Your task to perform on an android device: toggle location history Image 0: 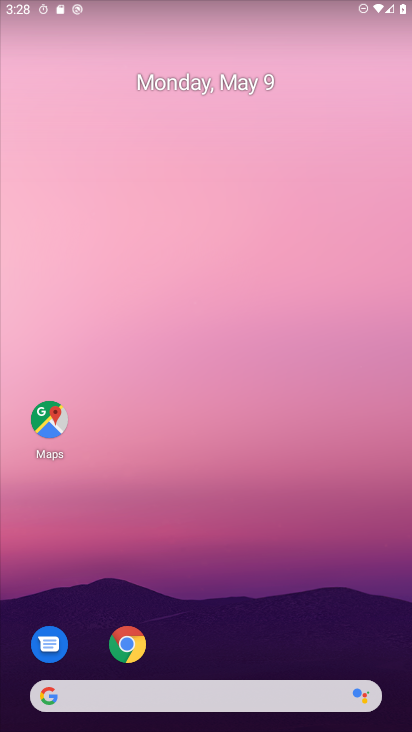
Step 0: drag from (239, 654) to (215, 153)
Your task to perform on an android device: toggle location history Image 1: 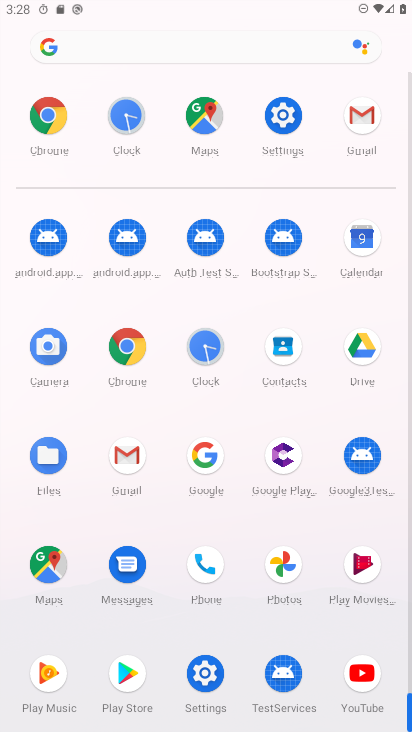
Step 1: drag from (338, 659) to (386, 318)
Your task to perform on an android device: toggle location history Image 2: 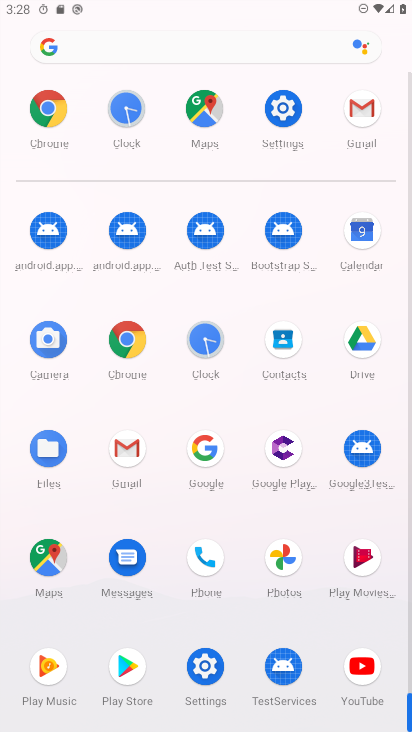
Step 2: drag from (251, 273) to (218, 583)
Your task to perform on an android device: toggle location history Image 3: 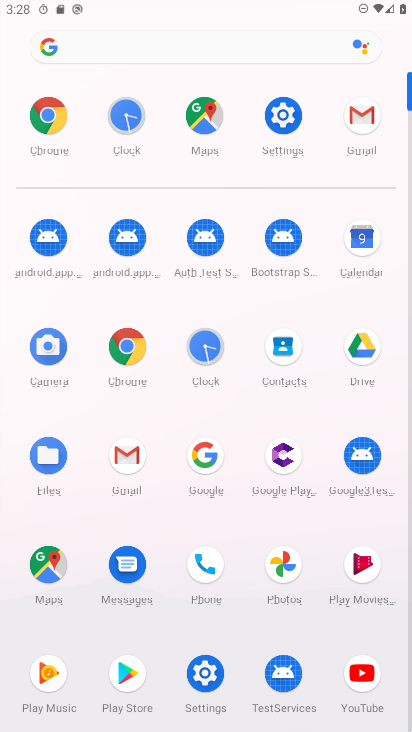
Step 3: drag from (232, 642) to (243, 274)
Your task to perform on an android device: toggle location history Image 4: 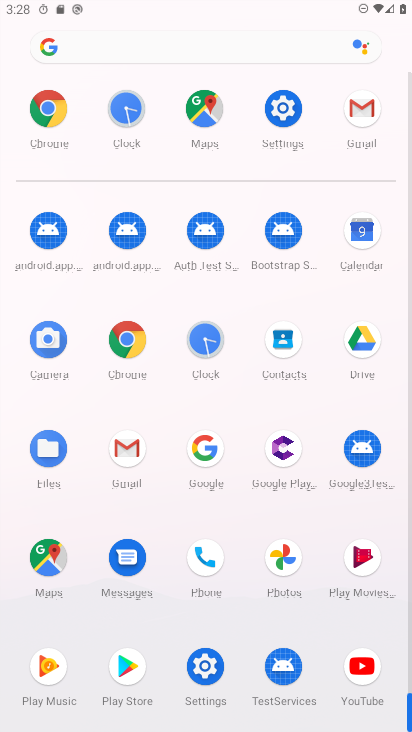
Step 4: drag from (241, 594) to (288, 370)
Your task to perform on an android device: toggle location history Image 5: 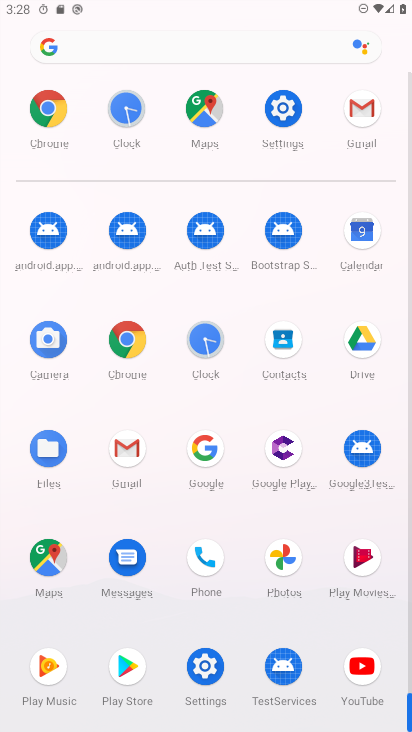
Step 5: drag from (225, 283) to (209, 662)
Your task to perform on an android device: toggle location history Image 6: 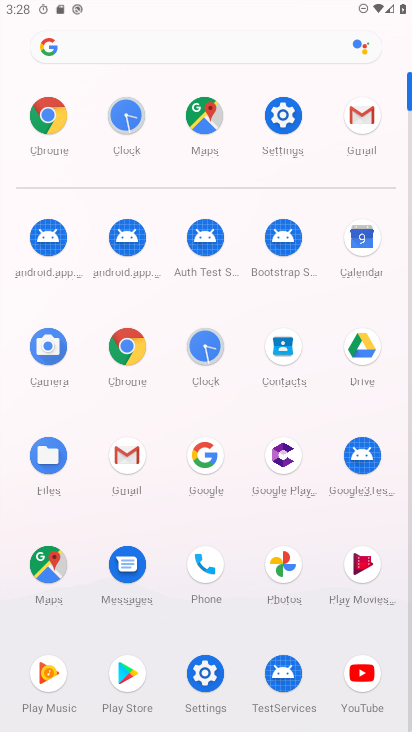
Step 6: drag from (276, 327) to (238, 709)
Your task to perform on an android device: toggle location history Image 7: 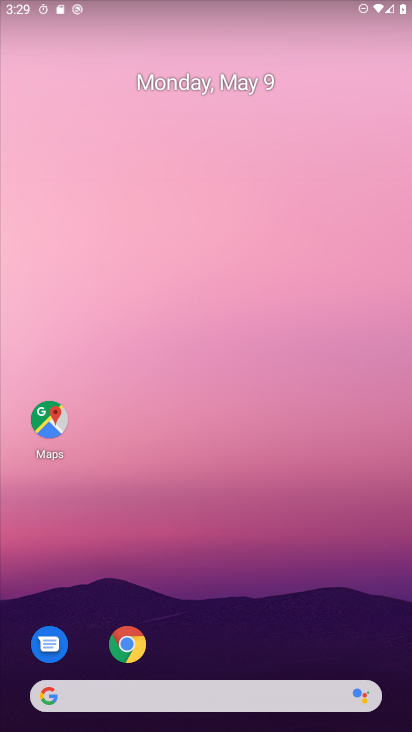
Step 7: drag from (191, 647) to (184, 0)
Your task to perform on an android device: toggle location history Image 8: 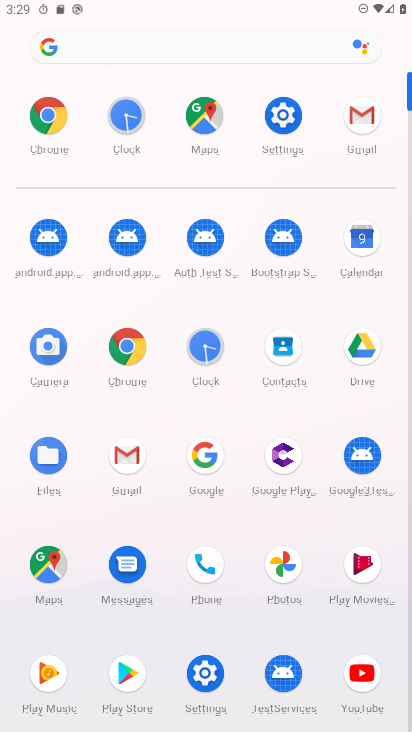
Step 8: click (197, 699)
Your task to perform on an android device: toggle location history Image 9: 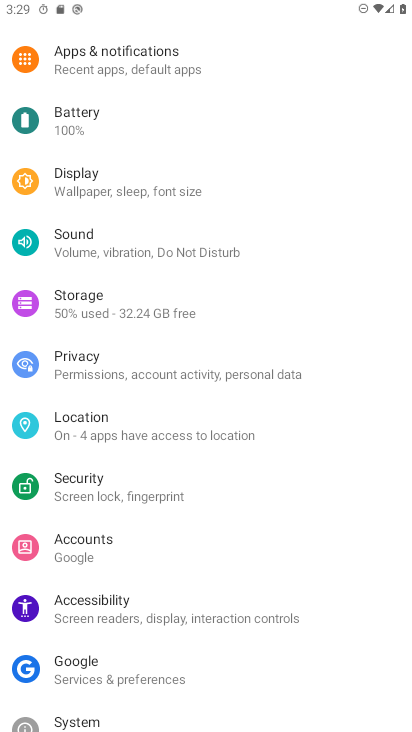
Step 9: drag from (254, 235) to (207, 466)
Your task to perform on an android device: toggle location history Image 10: 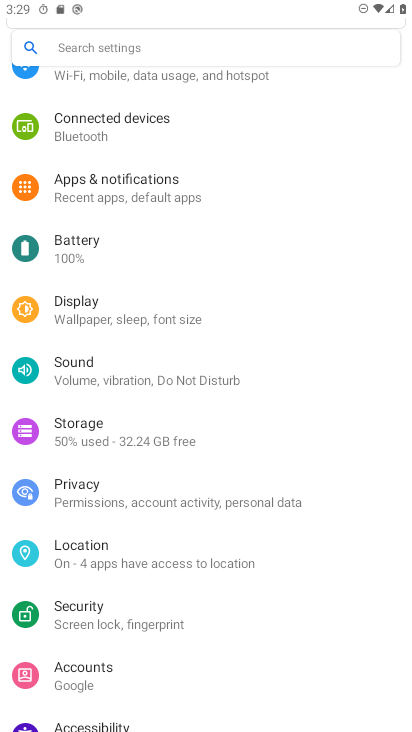
Step 10: drag from (237, 287) to (232, 530)
Your task to perform on an android device: toggle location history Image 11: 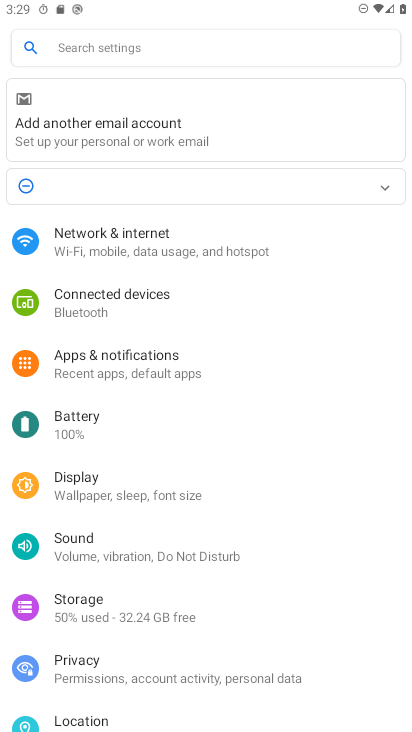
Step 11: drag from (171, 669) to (176, 231)
Your task to perform on an android device: toggle location history Image 12: 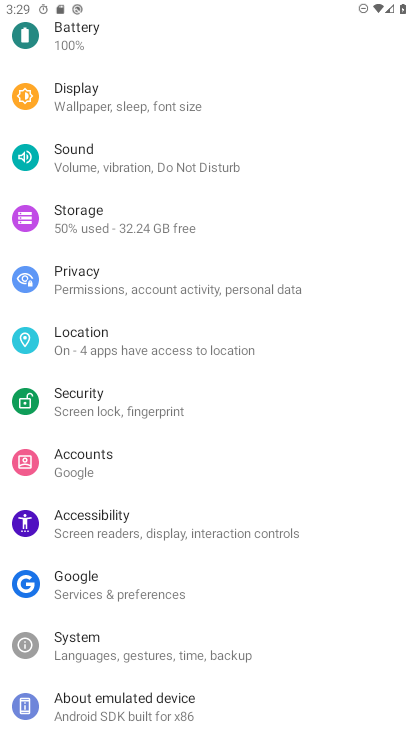
Step 12: drag from (220, 238) to (216, 490)
Your task to perform on an android device: toggle location history Image 13: 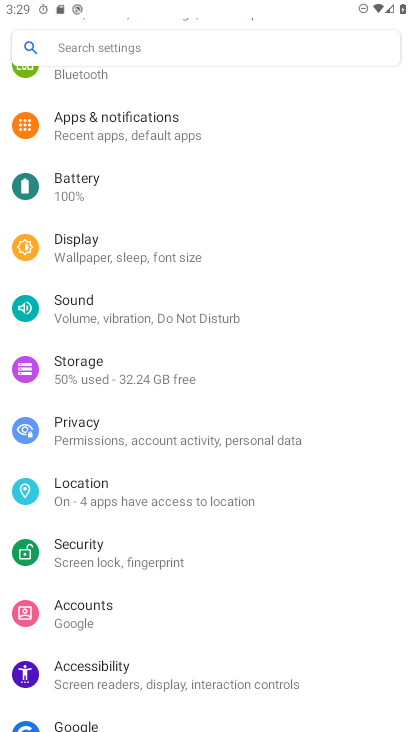
Step 13: click (237, 284)
Your task to perform on an android device: toggle location history Image 14: 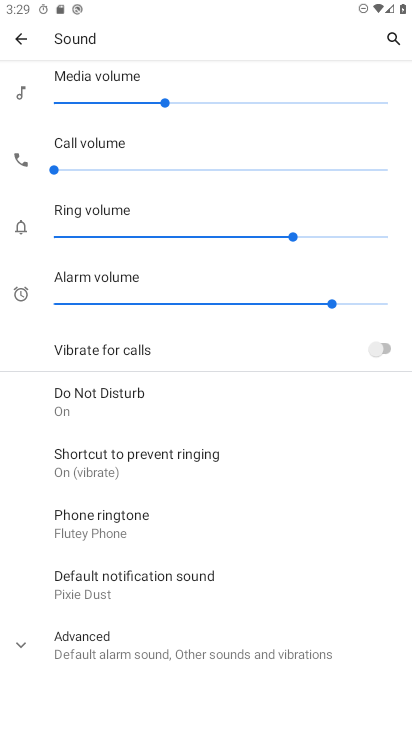
Step 14: drag from (244, 215) to (185, 683)
Your task to perform on an android device: toggle location history Image 15: 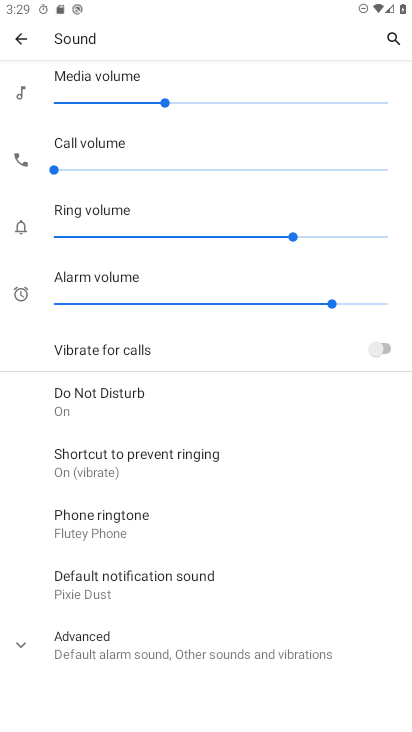
Step 15: press back button
Your task to perform on an android device: toggle location history Image 16: 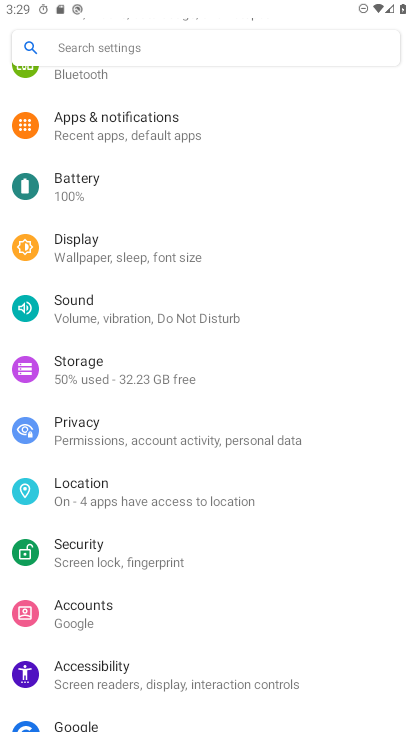
Step 16: drag from (297, 194) to (296, 569)
Your task to perform on an android device: toggle location history Image 17: 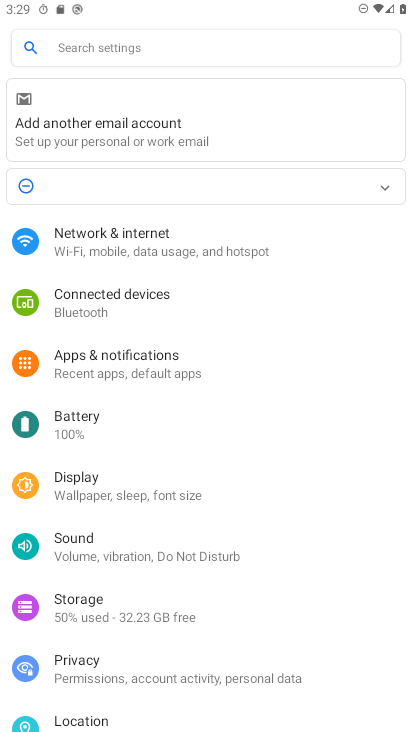
Step 17: drag from (236, 624) to (231, 309)
Your task to perform on an android device: toggle location history Image 18: 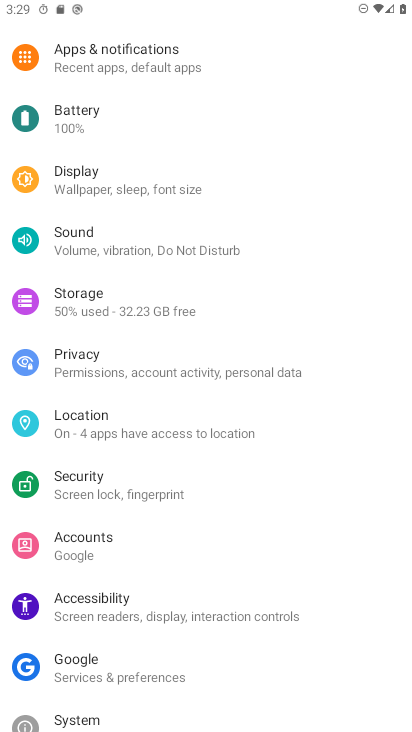
Step 18: drag from (234, 283) to (208, 569)
Your task to perform on an android device: toggle location history Image 19: 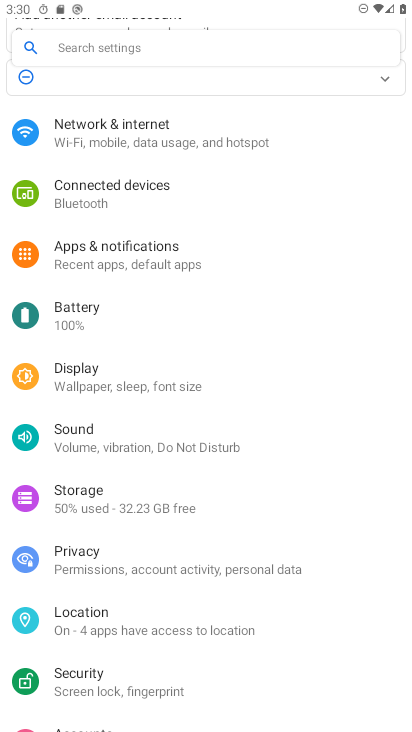
Step 19: drag from (121, 550) to (121, 398)
Your task to perform on an android device: toggle location history Image 20: 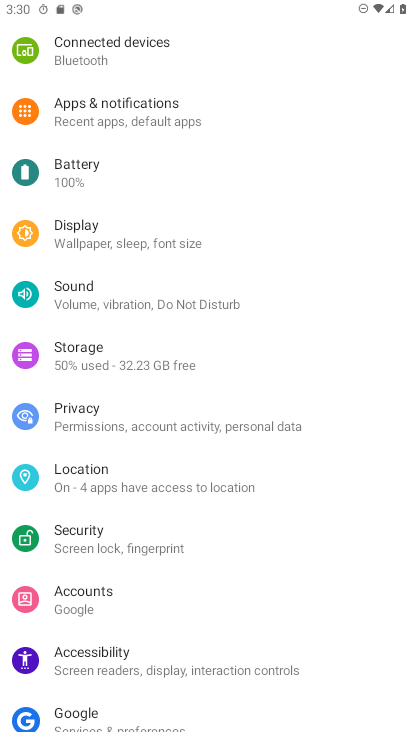
Step 20: drag from (166, 282) to (159, 645)
Your task to perform on an android device: toggle location history Image 21: 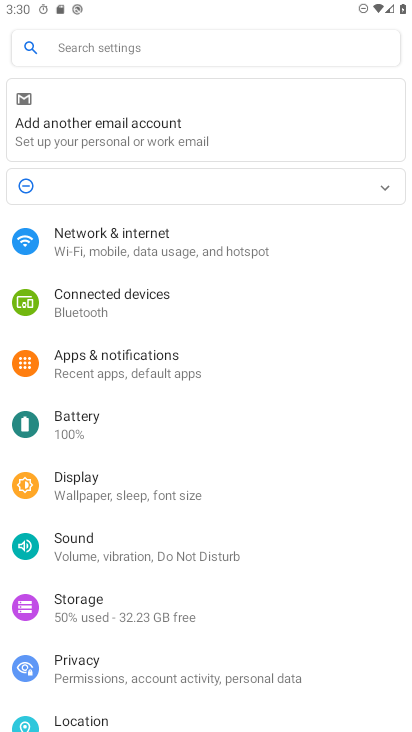
Step 21: drag from (274, 684) to (275, 262)
Your task to perform on an android device: toggle location history Image 22: 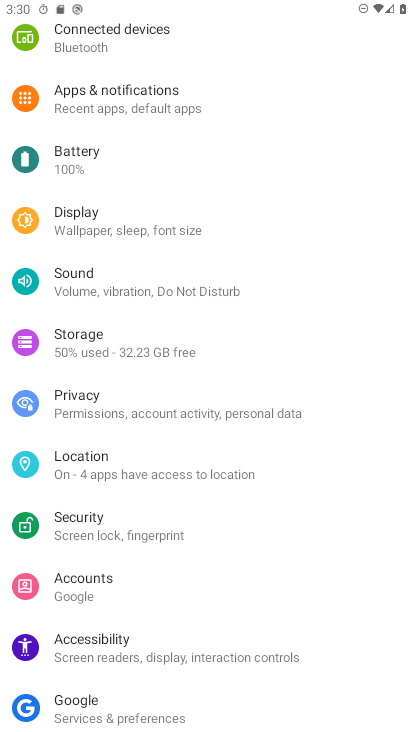
Step 22: drag from (131, 561) to (158, 288)
Your task to perform on an android device: toggle location history Image 23: 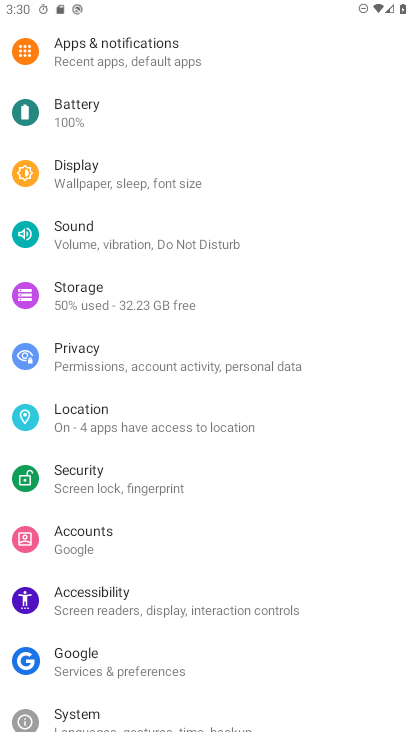
Step 23: drag from (242, 238) to (205, 591)
Your task to perform on an android device: toggle location history Image 24: 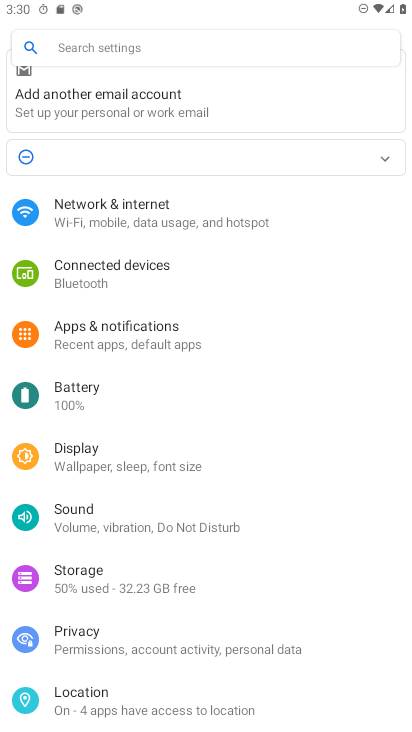
Step 24: click (108, 695)
Your task to perform on an android device: toggle location history Image 25: 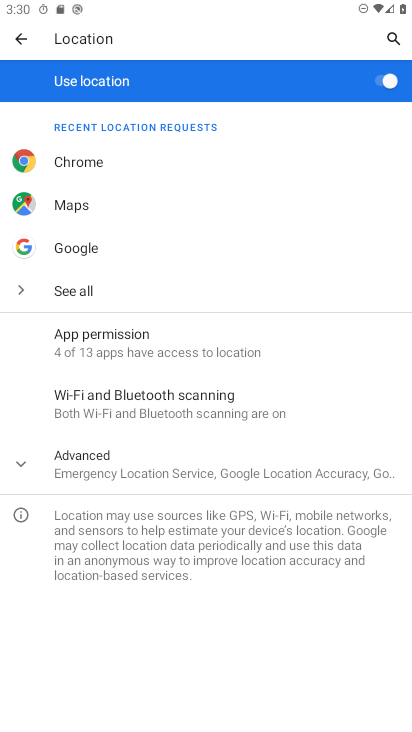
Step 25: click (80, 460)
Your task to perform on an android device: toggle location history Image 26: 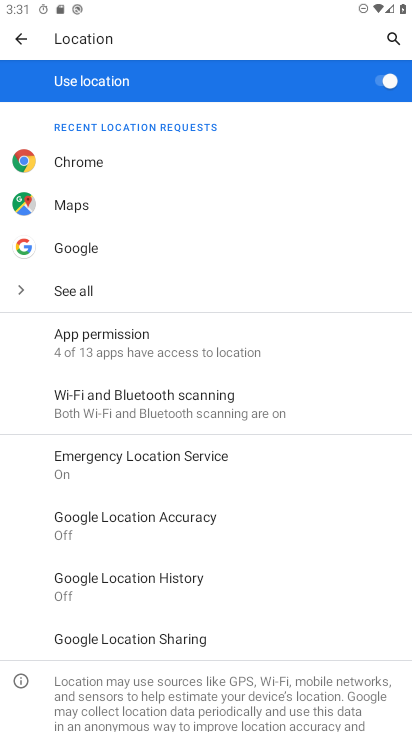
Step 26: click (159, 583)
Your task to perform on an android device: toggle location history Image 27: 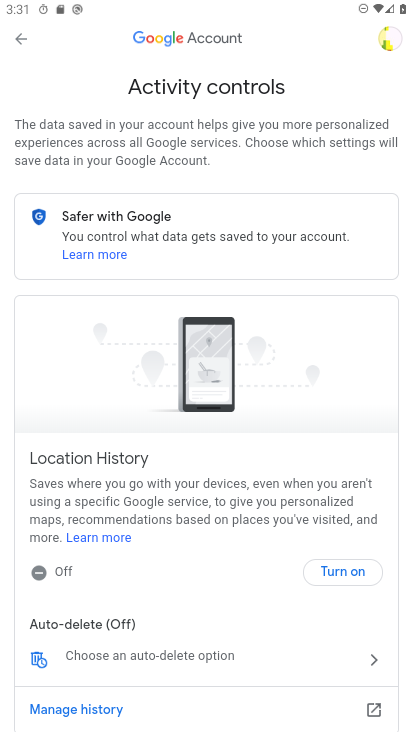
Step 27: drag from (279, 618) to (325, 270)
Your task to perform on an android device: toggle location history Image 28: 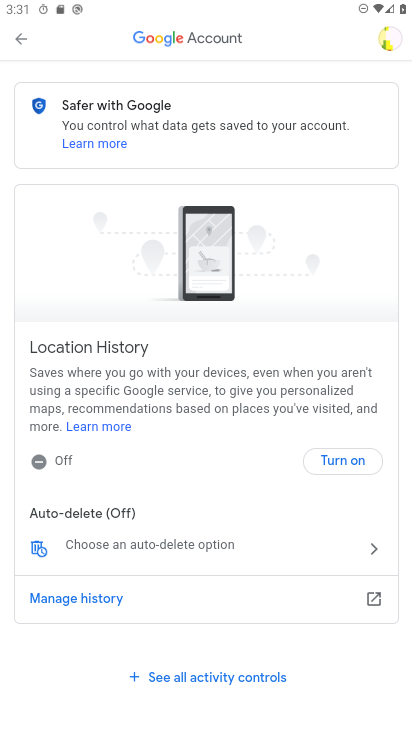
Step 28: click (335, 463)
Your task to perform on an android device: toggle location history Image 29: 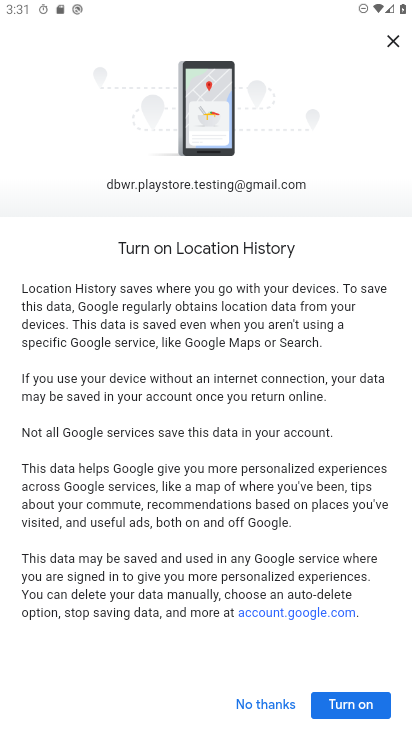
Step 29: click (355, 716)
Your task to perform on an android device: toggle location history Image 30: 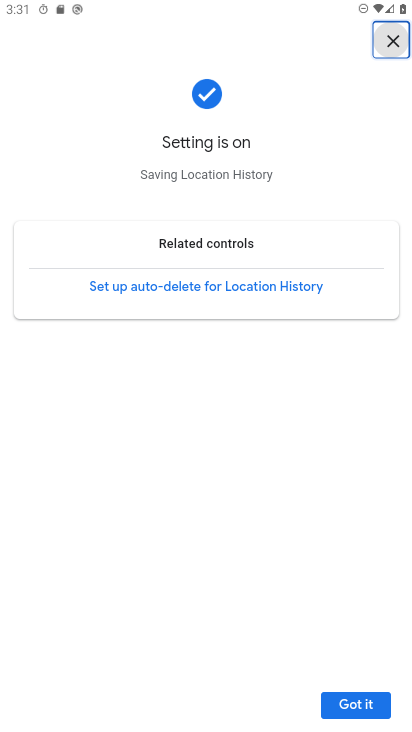
Step 30: click (343, 702)
Your task to perform on an android device: toggle location history Image 31: 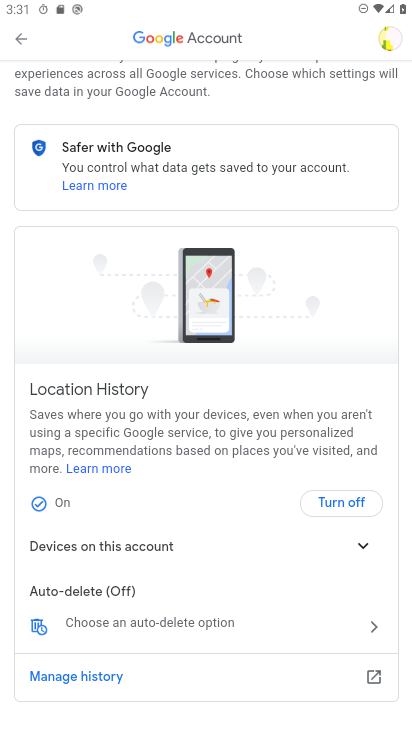
Step 31: task complete